Your task to perform on an android device: change notifications settings Image 0: 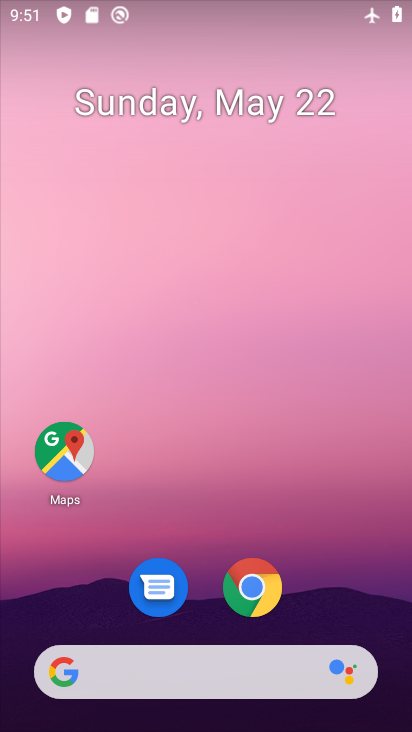
Step 0: drag from (242, 504) to (251, 0)
Your task to perform on an android device: change notifications settings Image 1: 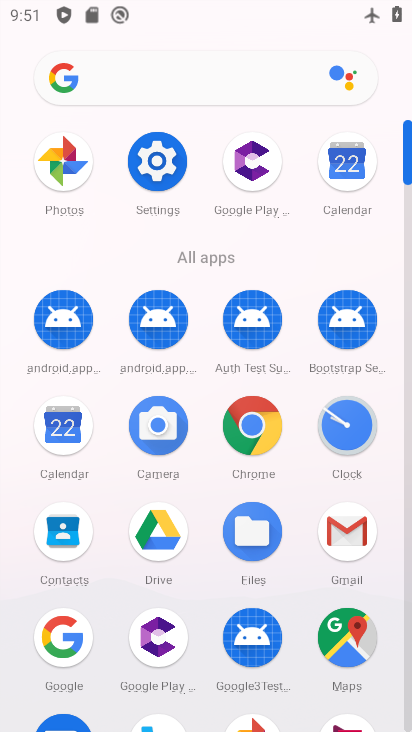
Step 1: click (160, 158)
Your task to perform on an android device: change notifications settings Image 2: 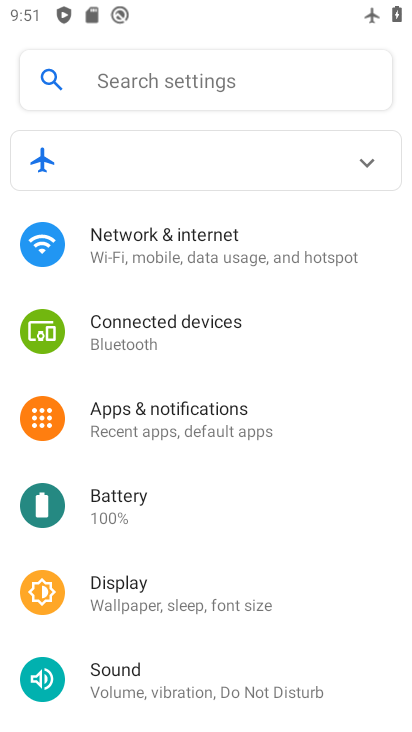
Step 2: click (199, 412)
Your task to perform on an android device: change notifications settings Image 3: 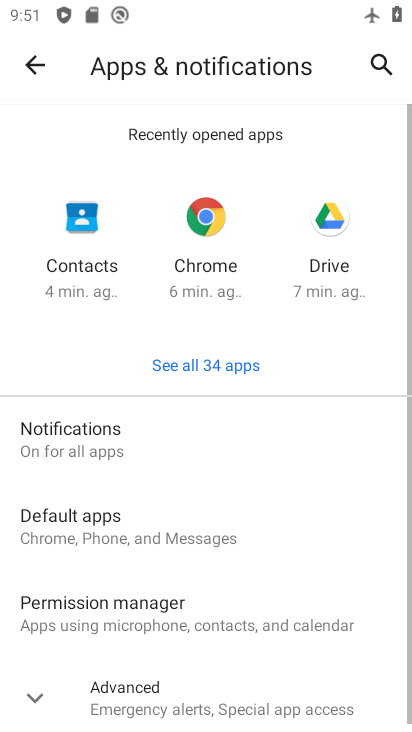
Step 3: click (161, 442)
Your task to perform on an android device: change notifications settings Image 4: 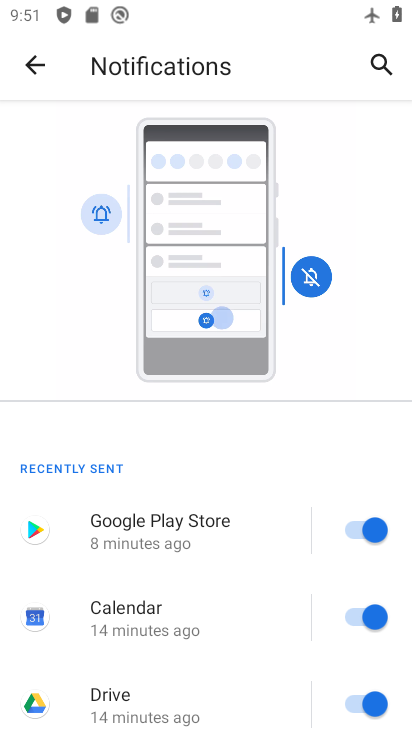
Step 4: drag from (255, 560) to (288, 188)
Your task to perform on an android device: change notifications settings Image 5: 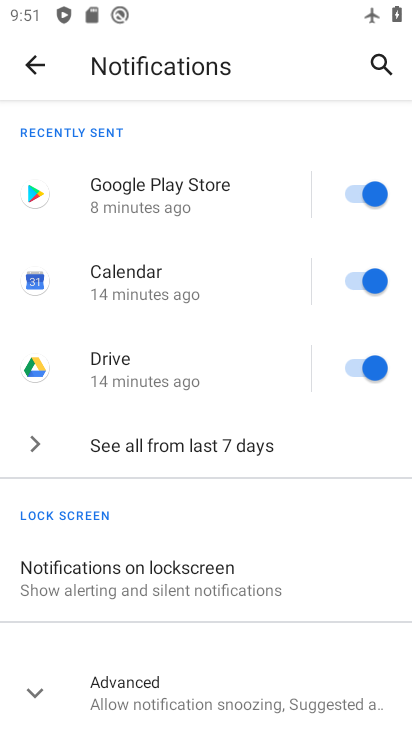
Step 5: click (188, 441)
Your task to perform on an android device: change notifications settings Image 6: 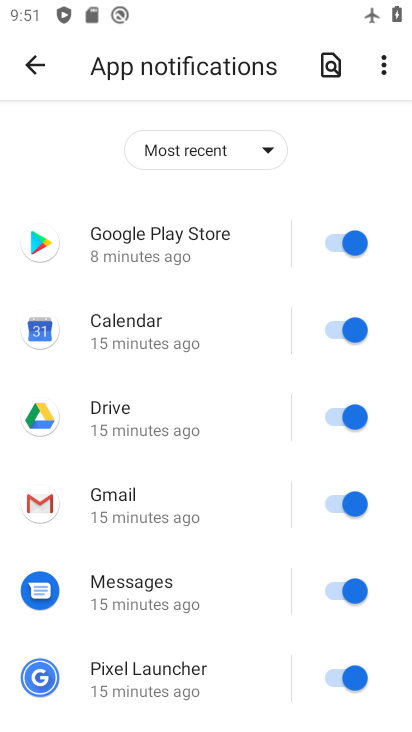
Step 6: click (343, 238)
Your task to perform on an android device: change notifications settings Image 7: 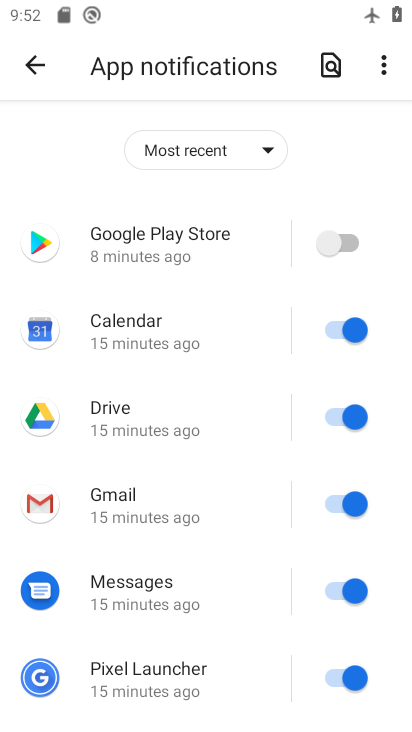
Step 7: click (335, 321)
Your task to perform on an android device: change notifications settings Image 8: 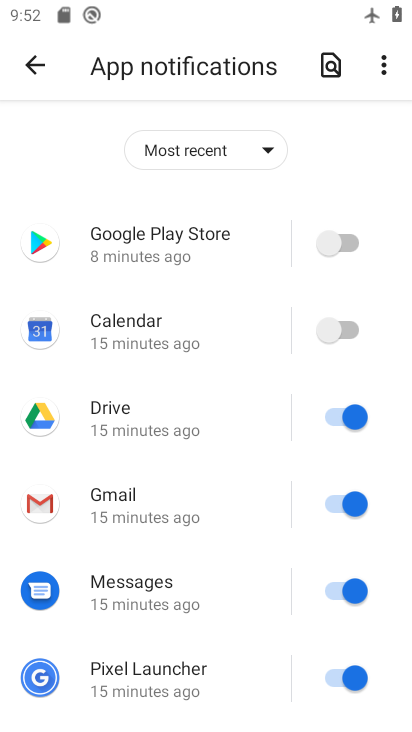
Step 8: click (338, 408)
Your task to perform on an android device: change notifications settings Image 9: 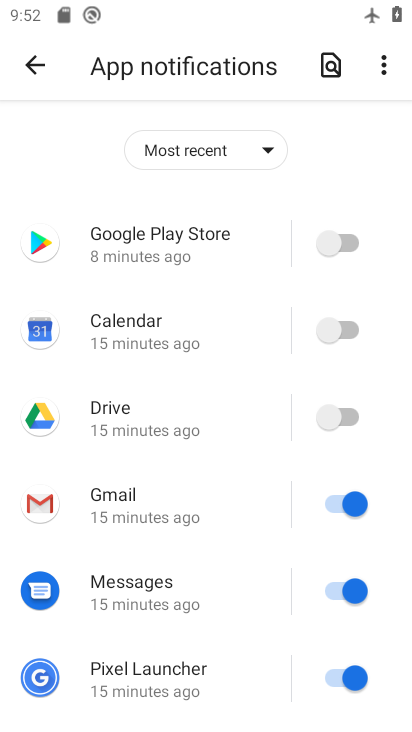
Step 9: click (340, 501)
Your task to perform on an android device: change notifications settings Image 10: 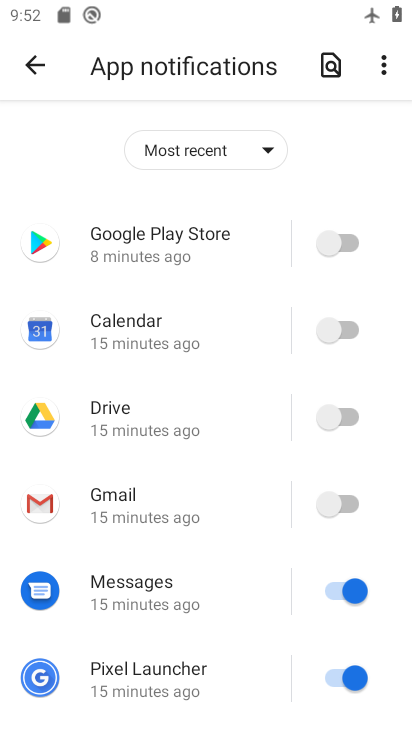
Step 10: click (339, 591)
Your task to perform on an android device: change notifications settings Image 11: 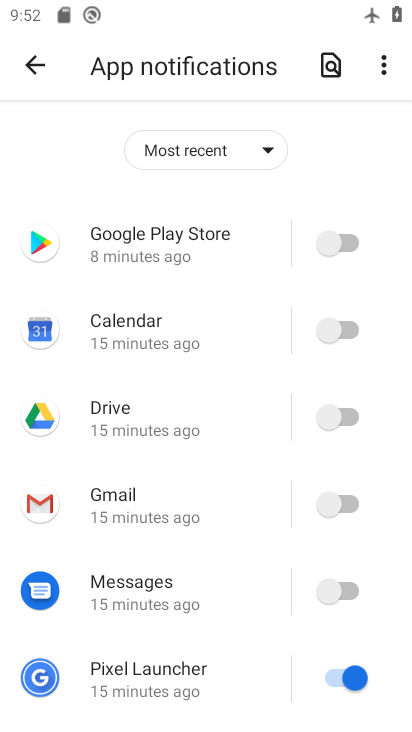
Step 11: click (340, 661)
Your task to perform on an android device: change notifications settings Image 12: 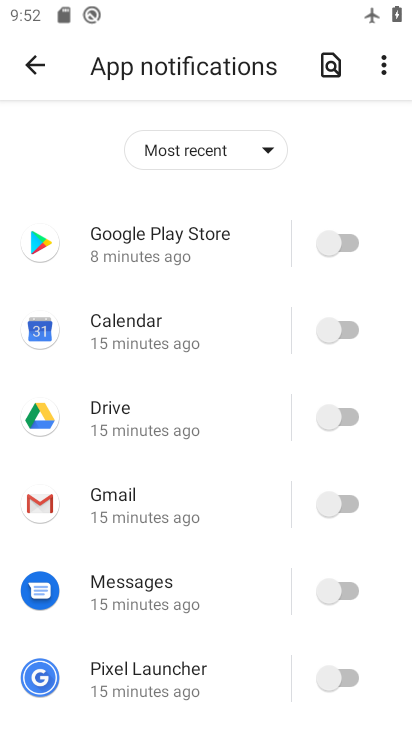
Step 12: drag from (224, 508) to (238, 159)
Your task to perform on an android device: change notifications settings Image 13: 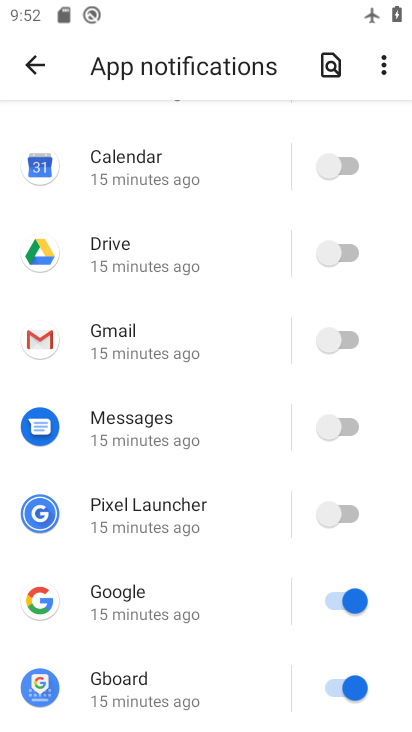
Step 13: click (333, 592)
Your task to perform on an android device: change notifications settings Image 14: 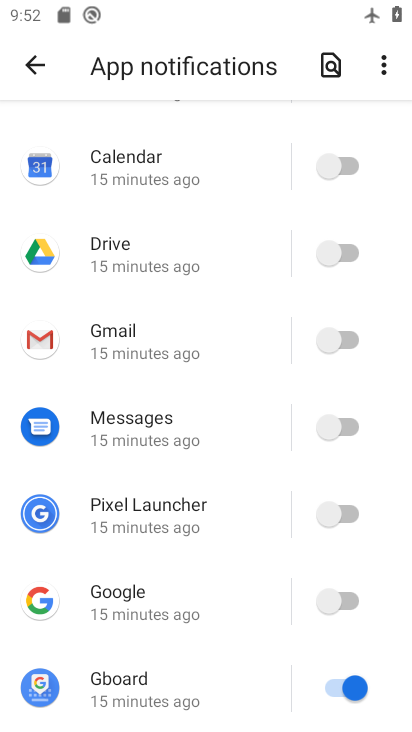
Step 14: click (343, 674)
Your task to perform on an android device: change notifications settings Image 15: 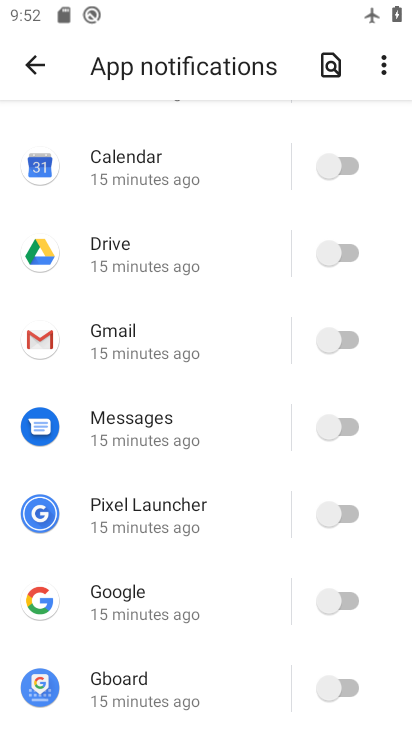
Step 15: task complete